Your task to perform on an android device: toggle show notifications on the lock screen Image 0: 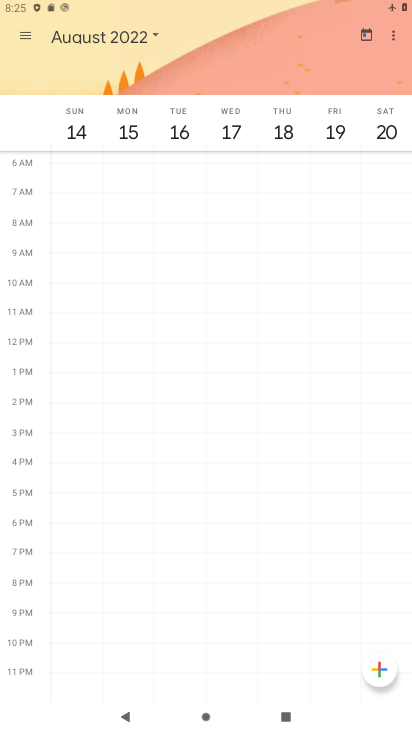
Step 0: press home button
Your task to perform on an android device: toggle show notifications on the lock screen Image 1: 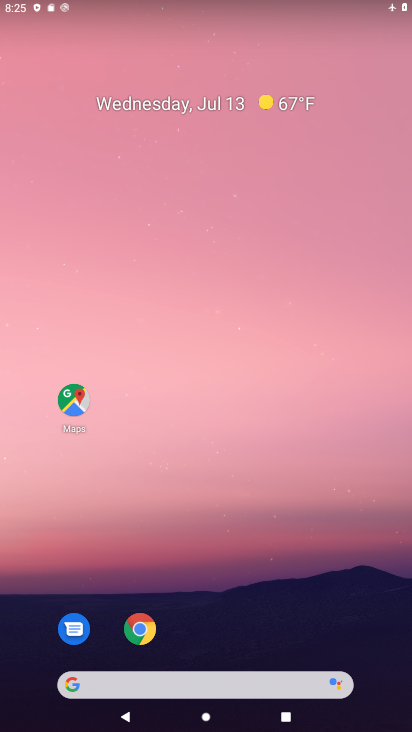
Step 1: drag from (196, 654) to (204, 0)
Your task to perform on an android device: toggle show notifications on the lock screen Image 2: 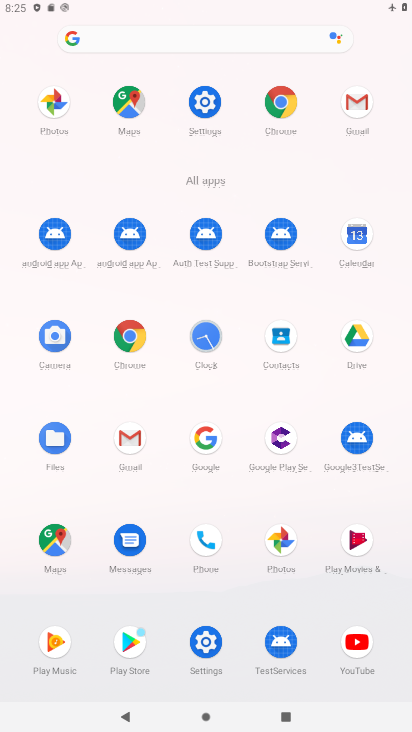
Step 2: click (201, 649)
Your task to perform on an android device: toggle show notifications on the lock screen Image 3: 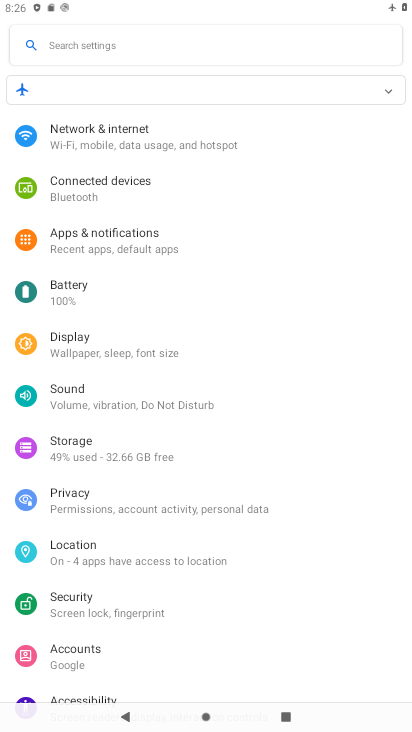
Step 3: click (119, 235)
Your task to perform on an android device: toggle show notifications on the lock screen Image 4: 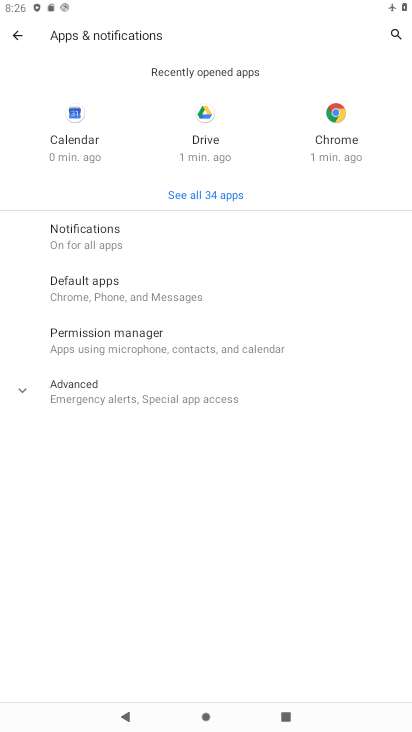
Step 4: click (128, 236)
Your task to perform on an android device: toggle show notifications on the lock screen Image 5: 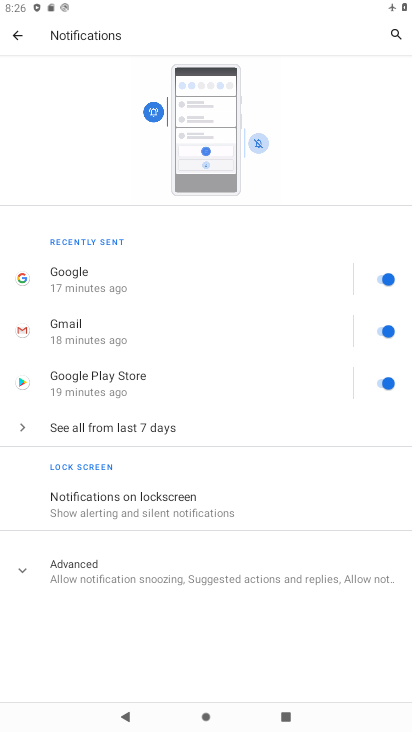
Step 5: click (151, 506)
Your task to perform on an android device: toggle show notifications on the lock screen Image 6: 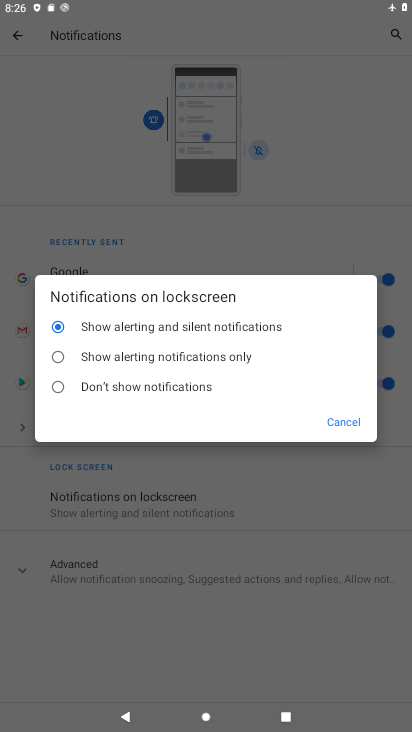
Step 6: click (145, 384)
Your task to perform on an android device: toggle show notifications on the lock screen Image 7: 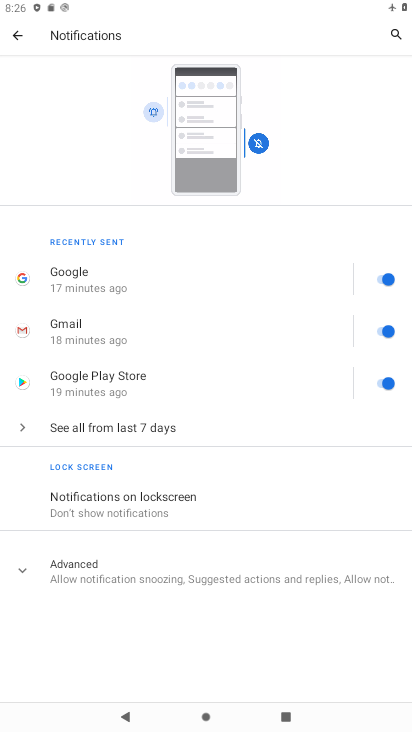
Step 7: task complete